Your task to perform on an android device: Show the shopping cart on walmart. Add asus rog to the cart on walmart Image 0: 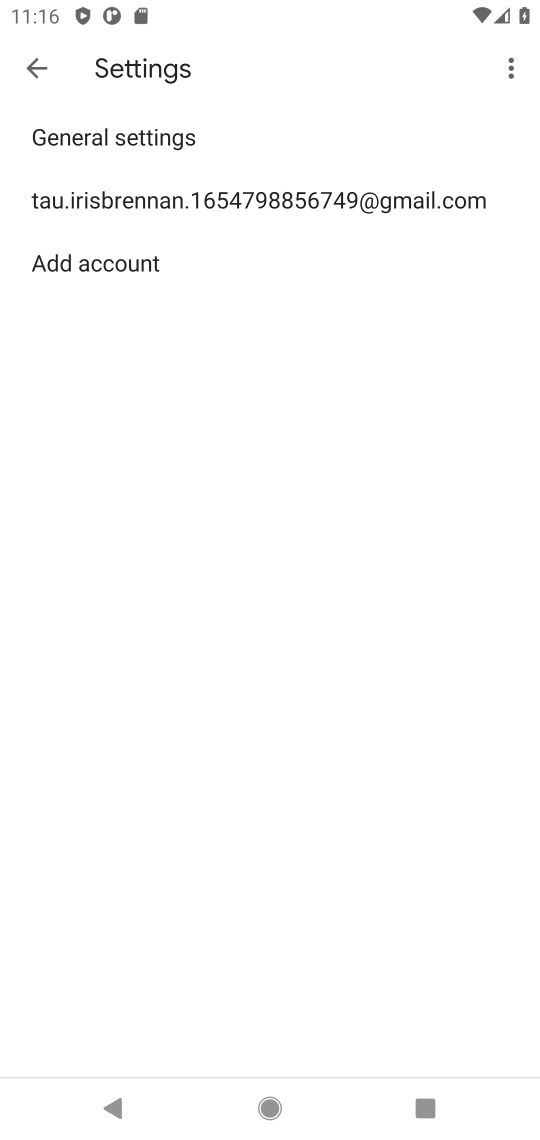
Step 0: press home button
Your task to perform on an android device: Show the shopping cart on walmart. Add asus rog to the cart on walmart Image 1: 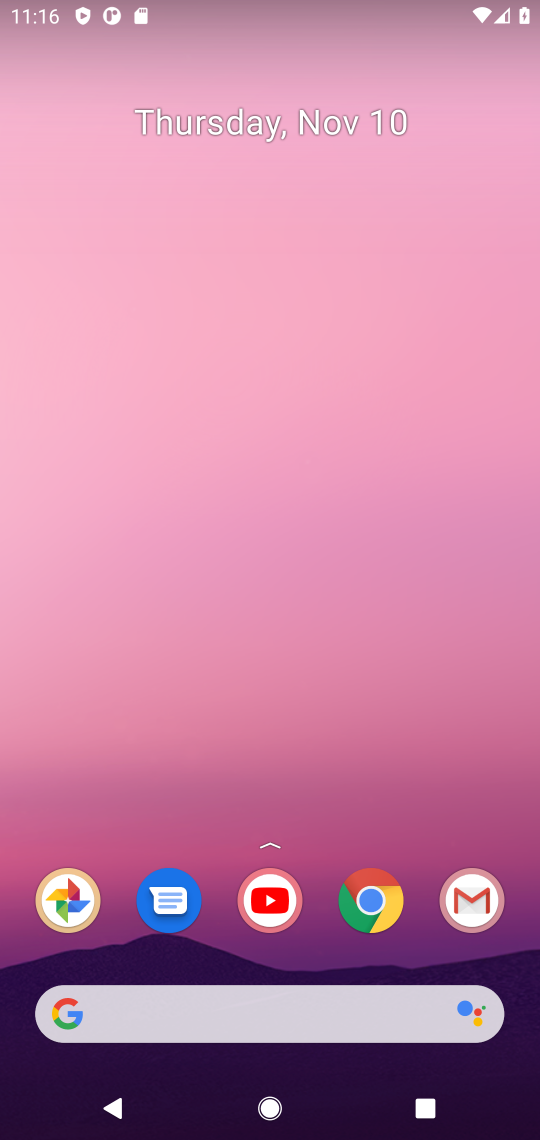
Step 1: click (356, 896)
Your task to perform on an android device: Show the shopping cart on walmart. Add asus rog to the cart on walmart Image 2: 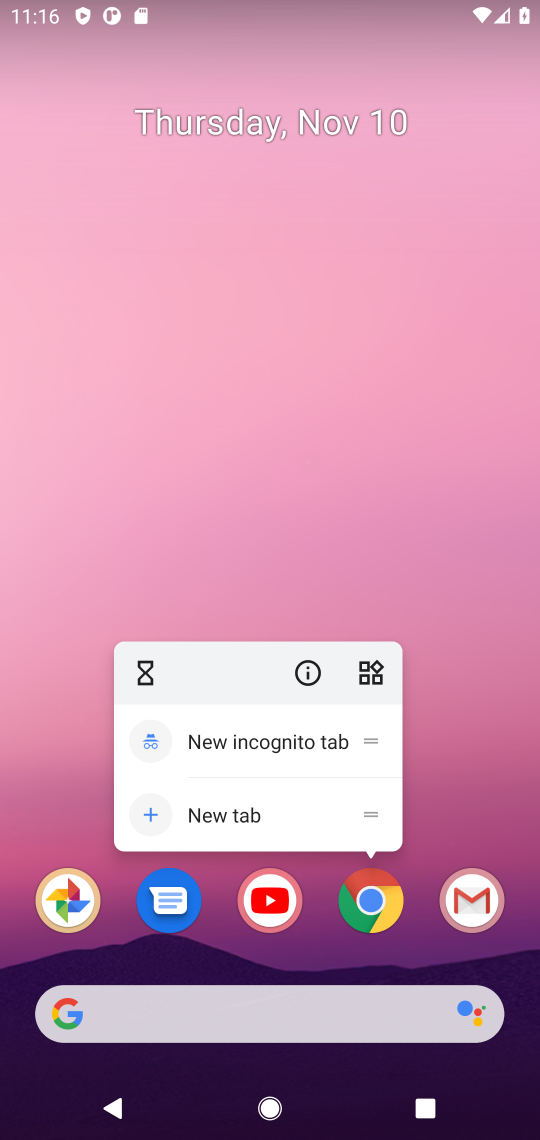
Step 2: click (372, 911)
Your task to perform on an android device: Show the shopping cart on walmart. Add asus rog to the cart on walmart Image 3: 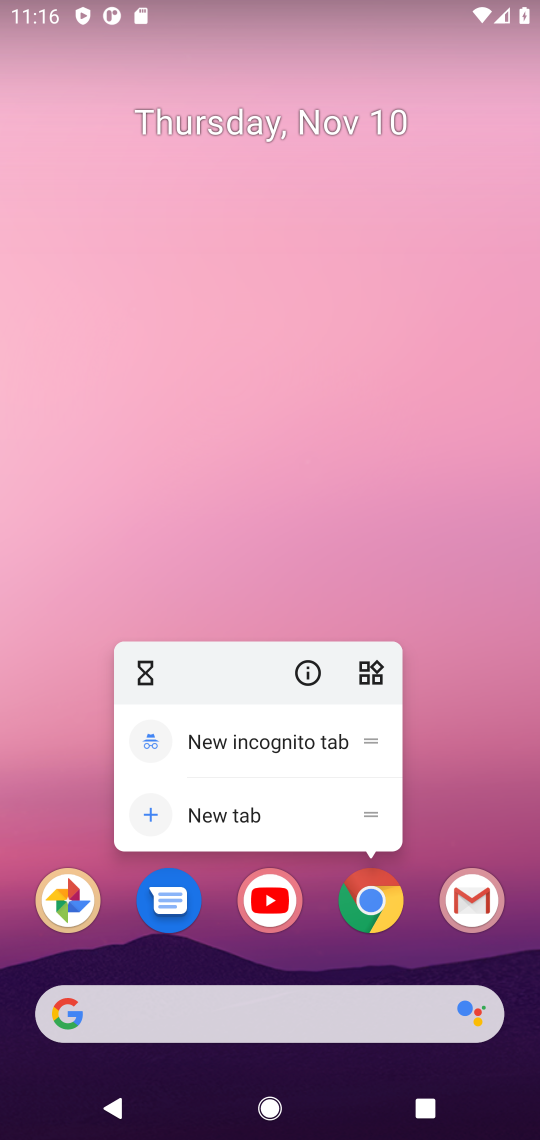
Step 3: click (368, 908)
Your task to perform on an android device: Show the shopping cart on walmart. Add asus rog to the cart on walmart Image 4: 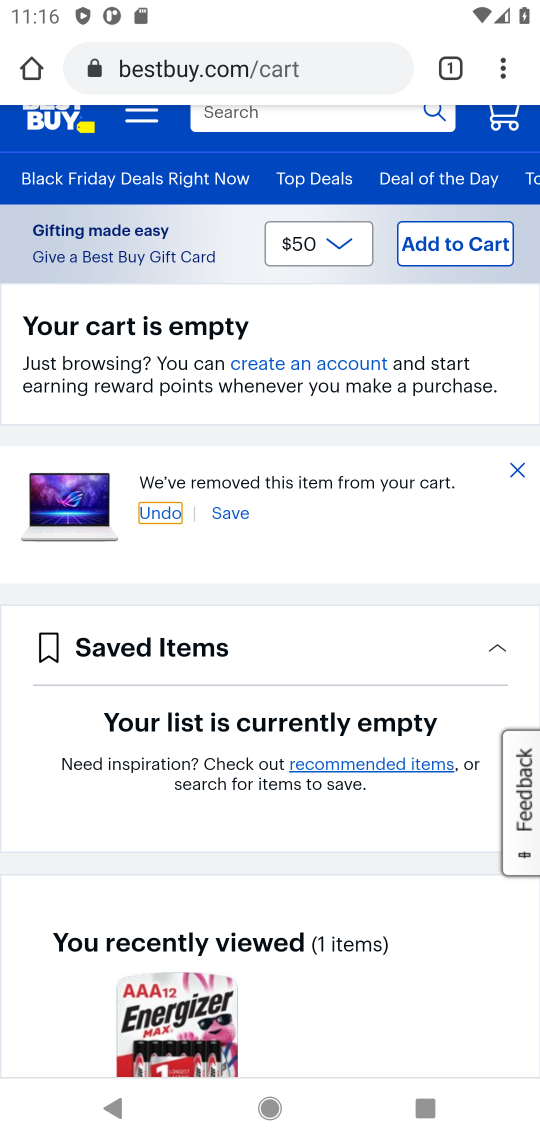
Step 4: click (254, 67)
Your task to perform on an android device: Show the shopping cart on walmart. Add asus rog to the cart on walmart Image 5: 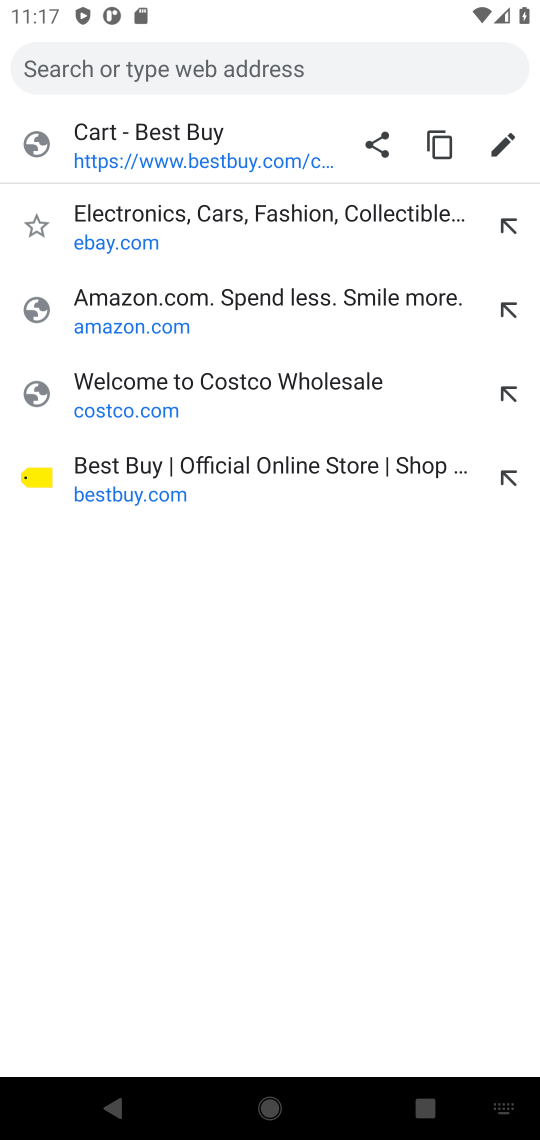
Step 5: type " walmart"
Your task to perform on an android device: Show the shopping cart on walmart. Add asus rog to the cart on walmart Image 6: 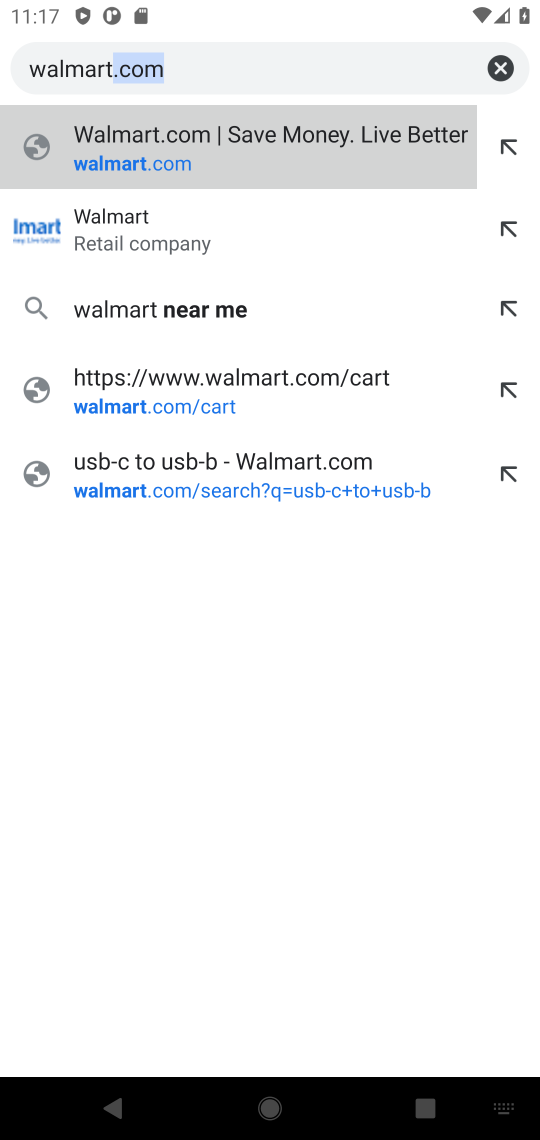
Step 6: press enter
Your task to perform on an android device: Show the shopping cart on walmart. Add asus rog to the cart on walmart Image 7: 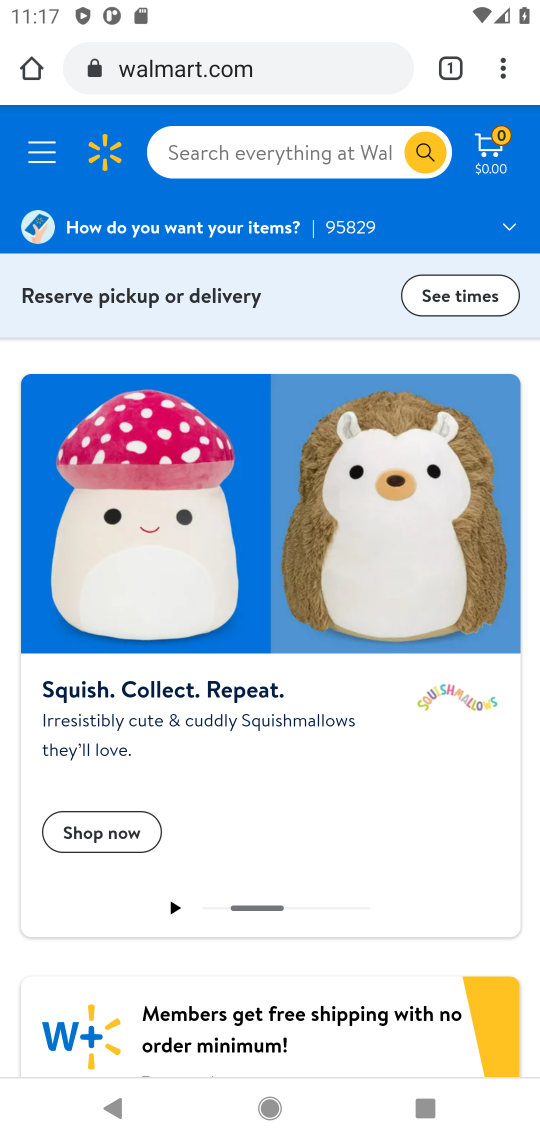
Step 7: click (220, 152)
Your task to perform on an android device: Show the shopping cart on walmart. Add asus rog to the cart on walmart Image 8: 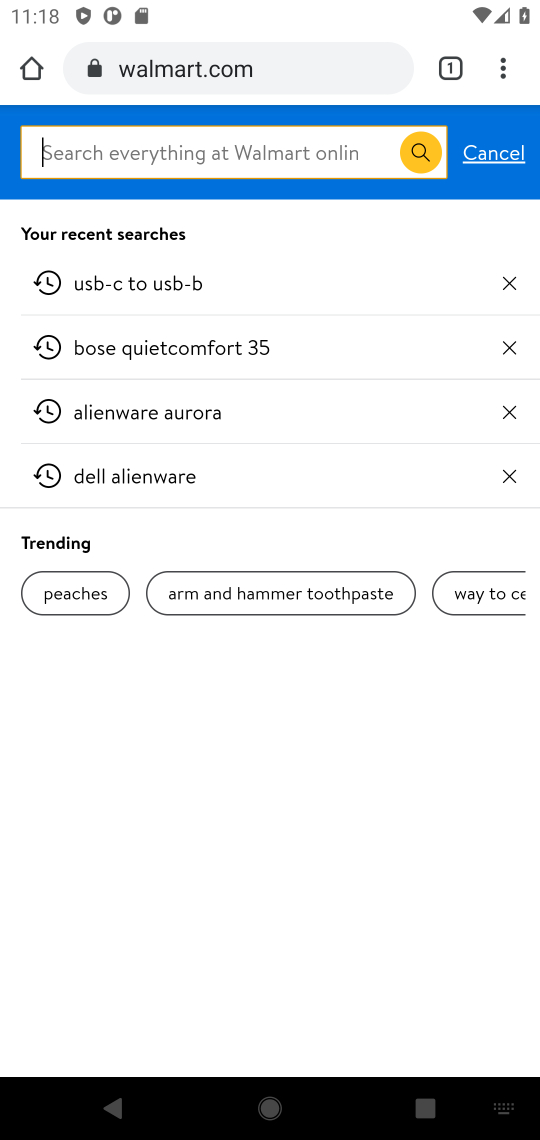
Step 8: type "asus rog"
Your task to perform on an android device: Show the shopping cart on walmart. Add asus rog to the cart on walmart Image 9: 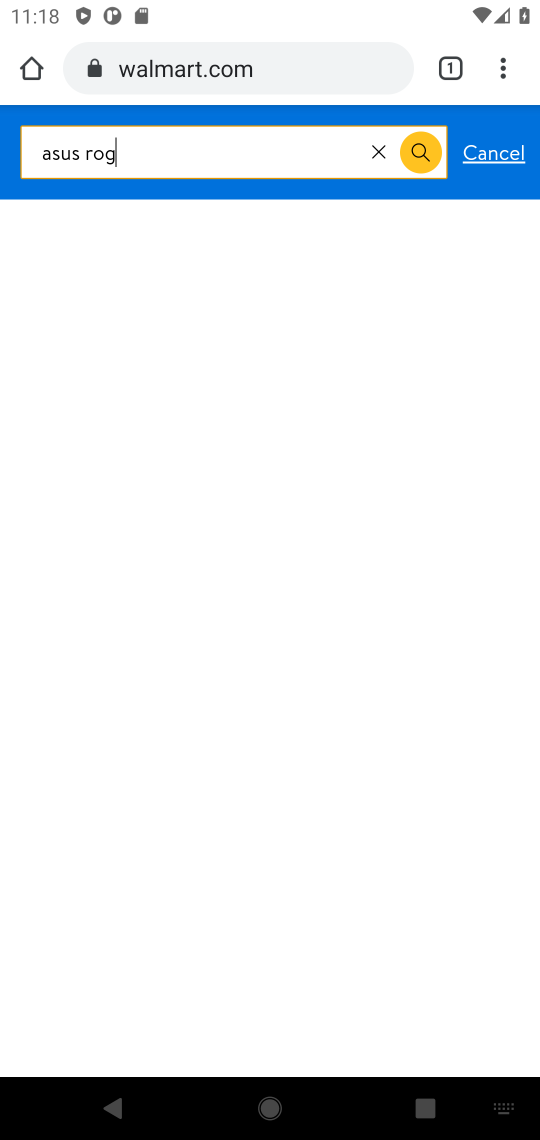
Step 9: press enter
Your task to perform on an android device: Show the shopping cart on walmart. Add asus rog to the cart on walmart Image 10: 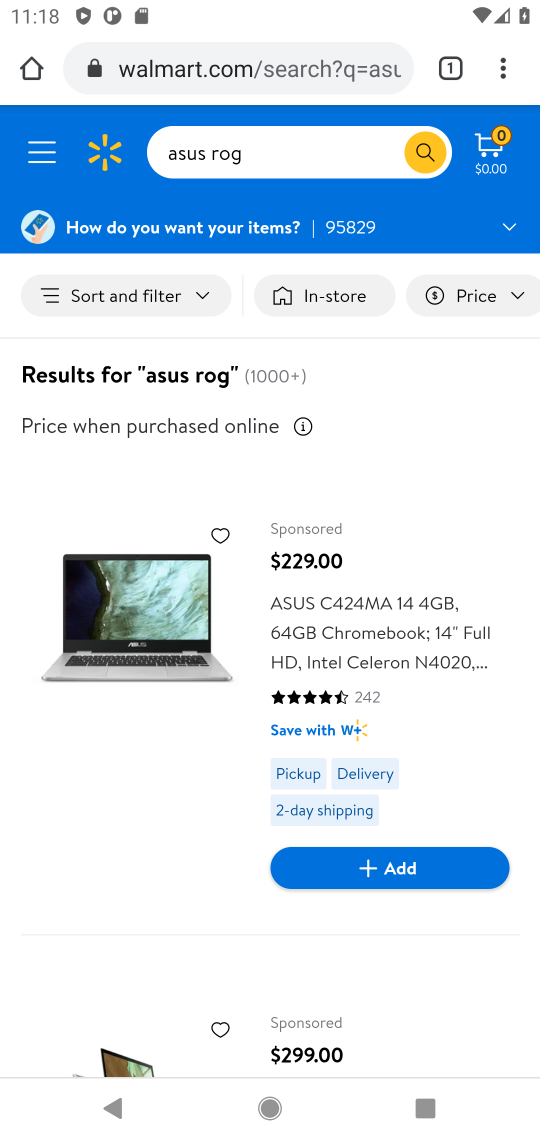
Step 10: task complete